Your task to perform on an android device: change your default location settings in chrome Image 0: 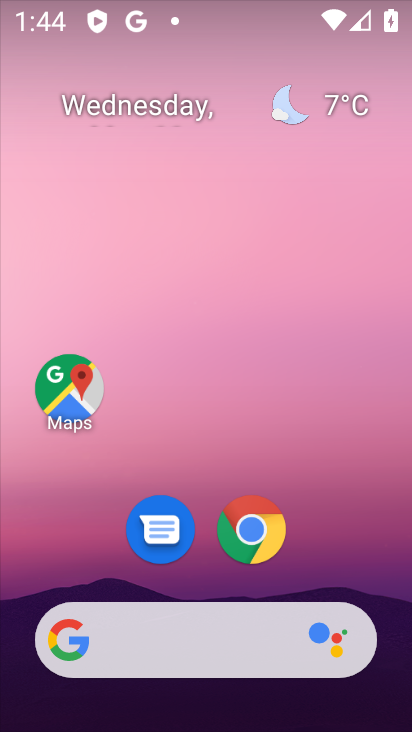
Step 0: click (263, 532)
Your task to perform on an android device: change your default location settings in chrome Image 1: 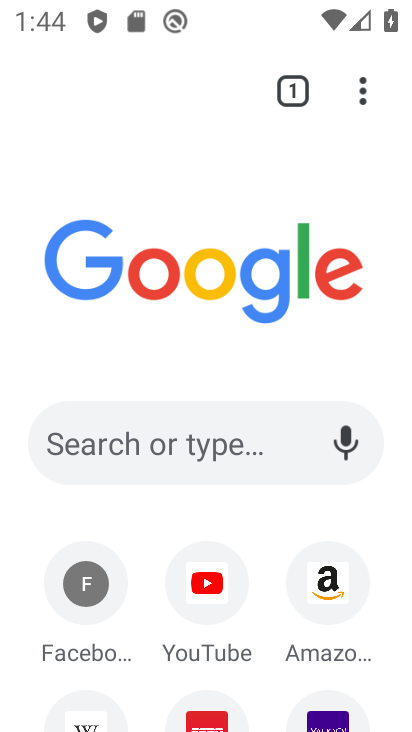
Step 1: click (361, 84)
Your task to perform on an android device: change your default location settings in chrome Image 2: 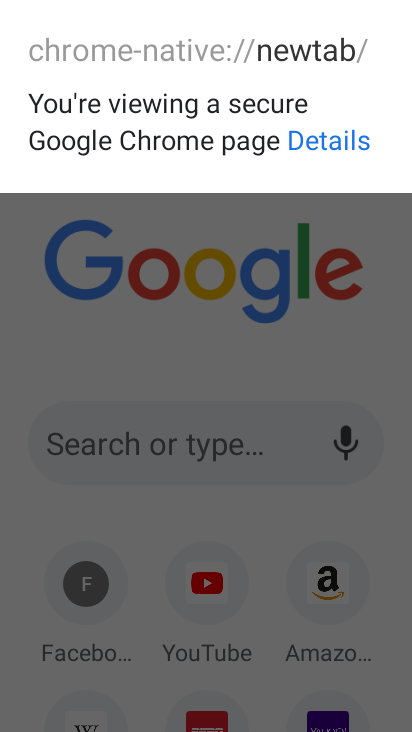
Step 2: click (364, 331)
Your task to perform on an android device: change your default location settings in chrome Image 3: 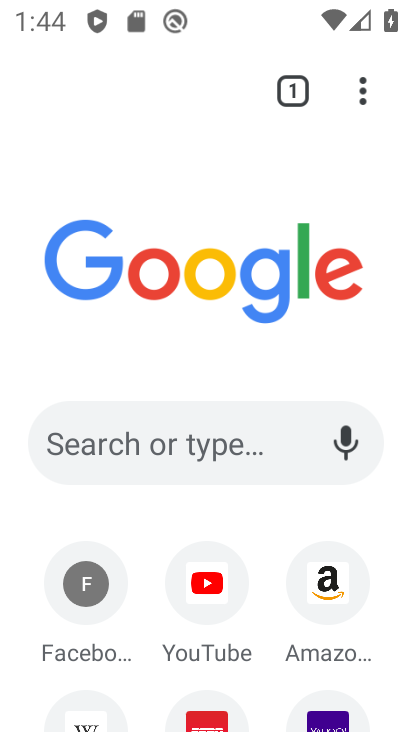
Step 3: click (353, 87)
Your task to perform on an android device: change your default location settings in chrome Image 4: 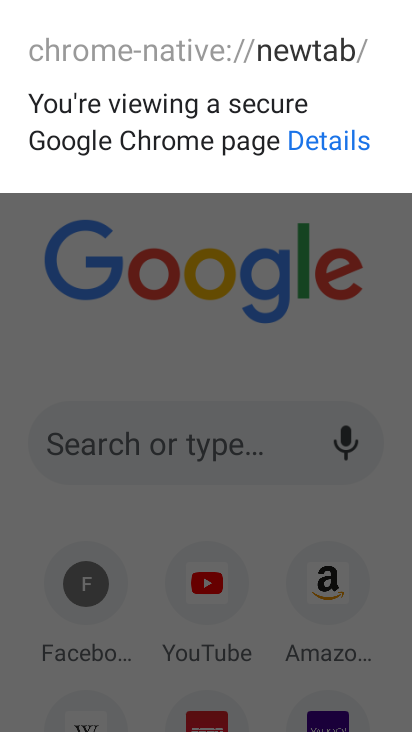
Step 4: click (373, 282)
Your task to perform on an android device: change your default location settings in chrome Image 5: 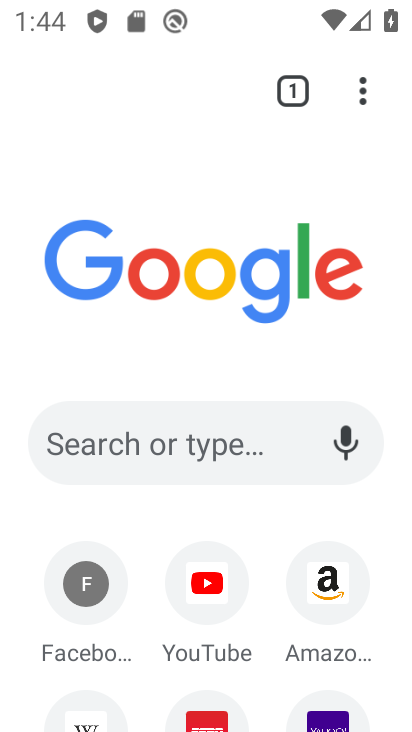
Step 5: click (348, 92)
Your task to perform on an android device: change your default location settings in chrome Image 6: 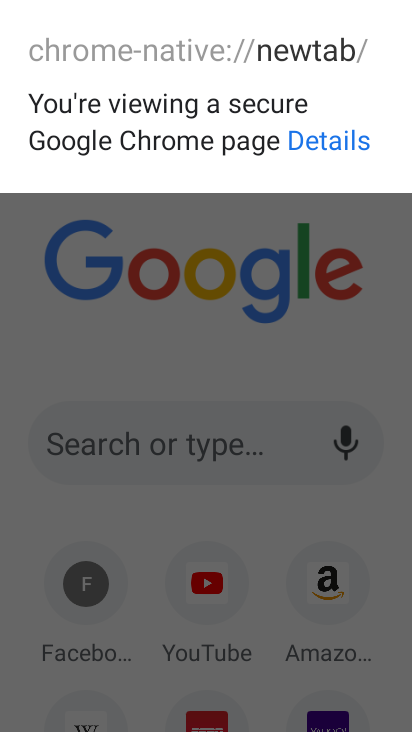
Step 6: click (388, 296)
Your task to perform on an android device: change your default location settings in chrome Image 7: 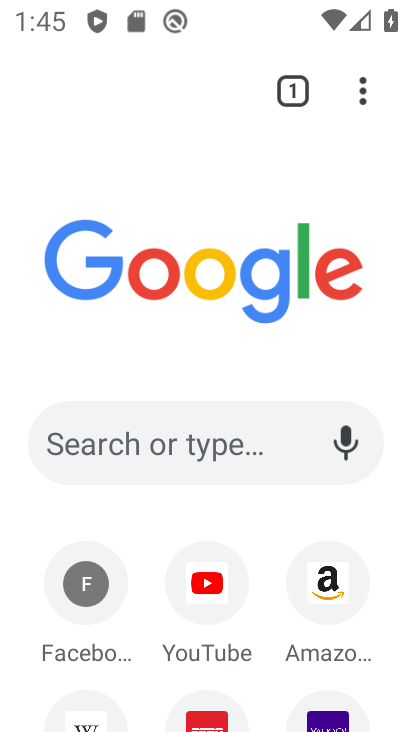
Step 7: click (349, 80)
Your task to perform on an android device: change your default location settings in chrome Image 8: 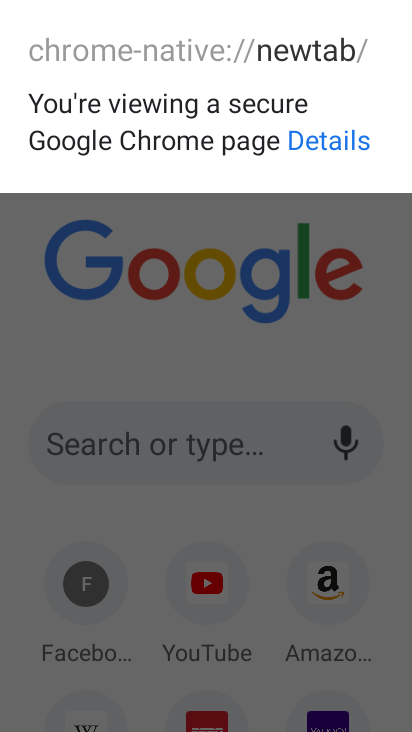
Step 8: click (379, 256)
Your task to perform on an android device: change your default location settings in chrome Image 9: 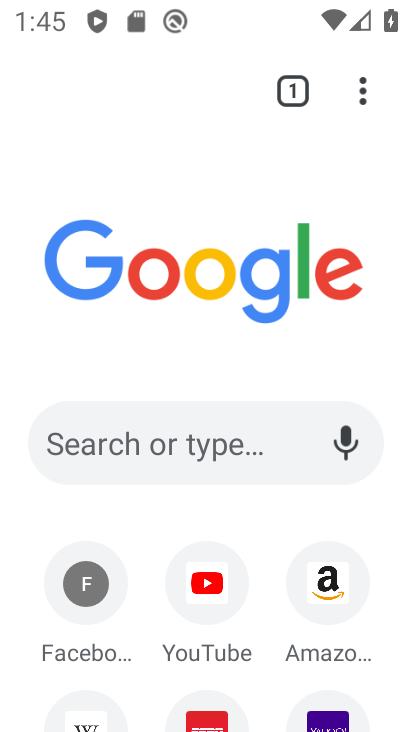
Step 9: click (363, 87)
Your task to perform on an android device: change your default location settings in chrome Image 10: 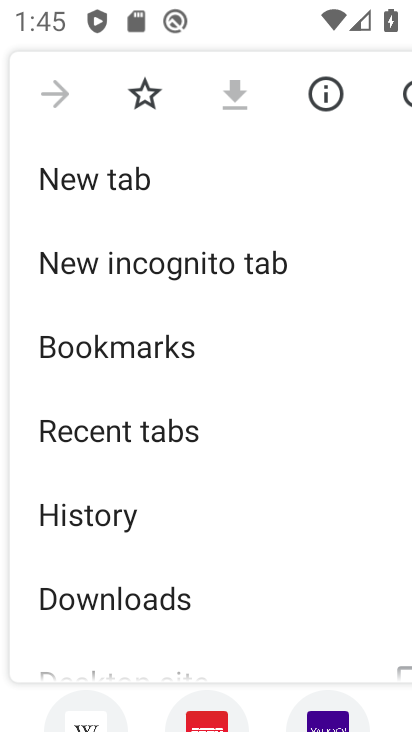
Step 10: drag from (116, 639) to (373, 112)
Your task to perform on an android device: change your default location settings in chrome Image 11: 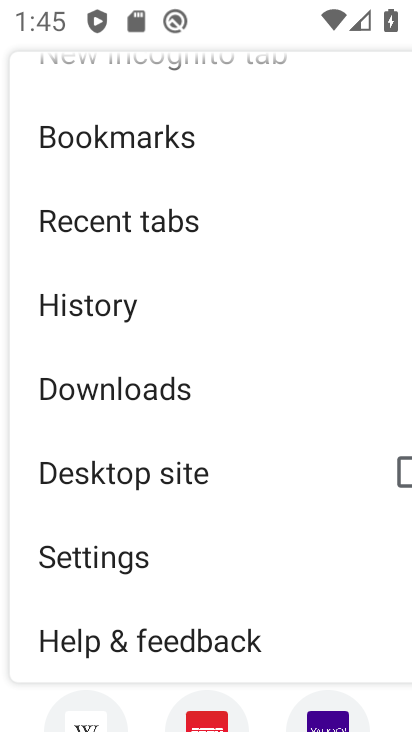
Step 11: click (135, 566)
Your task to perform on an android device: change your default location settings in chrome Image 12: 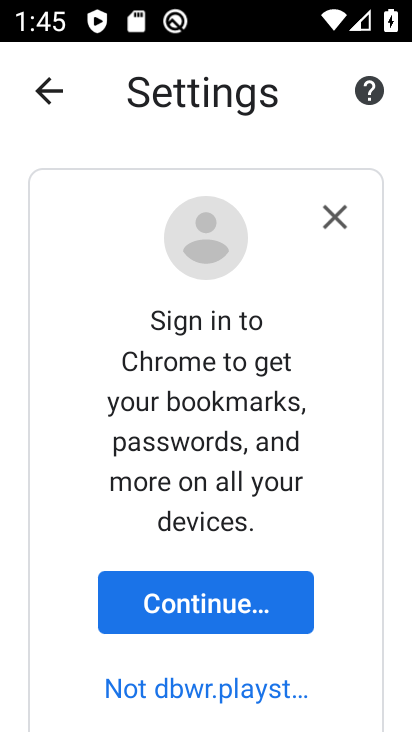
Step 12: click (326, 215)
Your task to perform on an android device: change your default location settings in chrome Image 13: 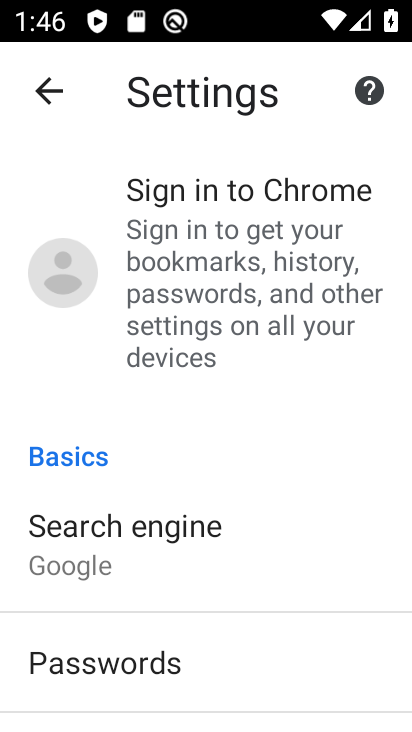
Step 13: drag from (188, 680) to (275, 204)
Your task to perform on an android device: change your default location settings in chrome Image 14: 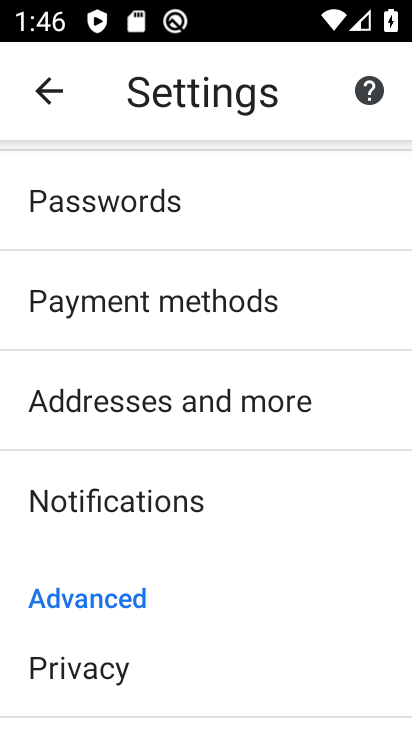
Step 14: drag from (129, 697) to (240, 225)
Your task to perform on an android device: change your default location settings in chrome Image 15: 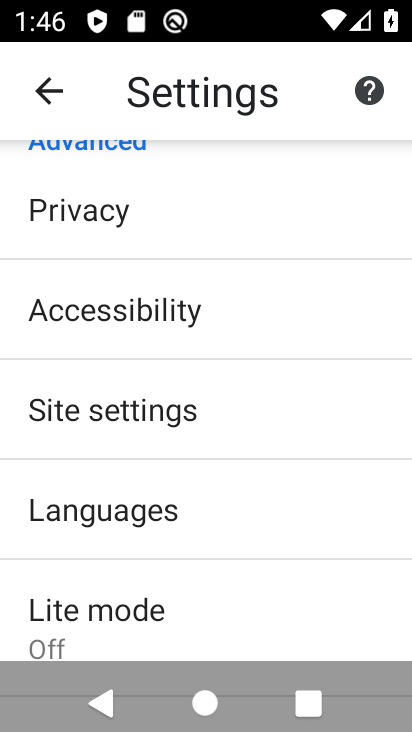
Step 15: click (77, 416)
Your task to perform on an android device: change your default location settings in chrome Image 16: 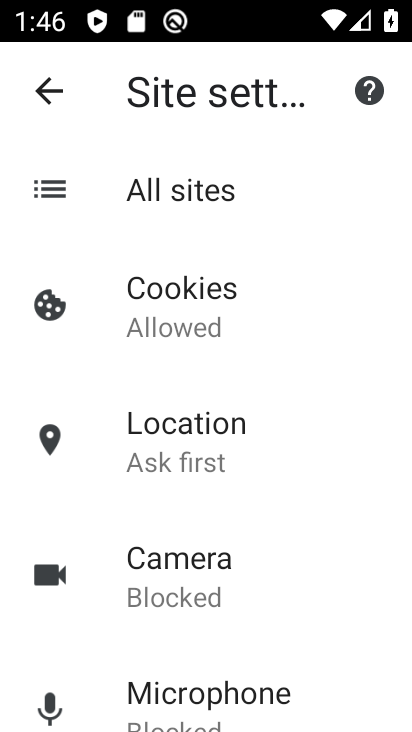
Step 16: click (136, 450)
Your task to perform on an android device: change your default location settings in chrome Image 17: 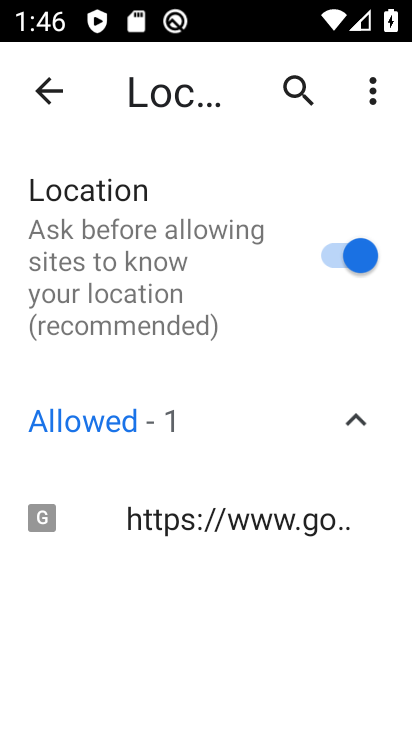
Step 17: task complete